Your task to perform on an android device: Go to Google maps Image 0: 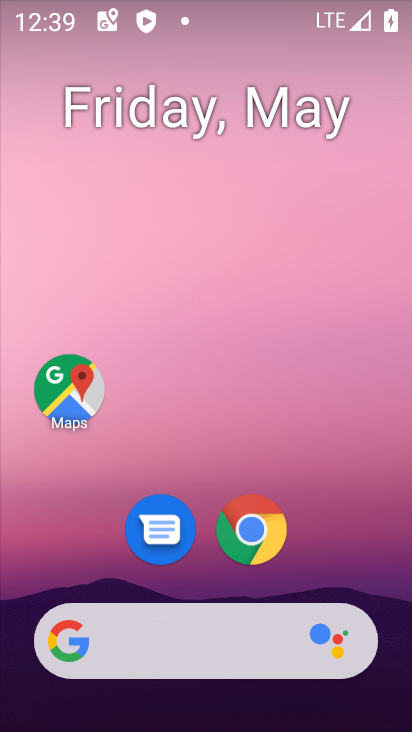
Step 0: click (72, 389)
Your task to perform on an android device: Go to Google maps Image 1: 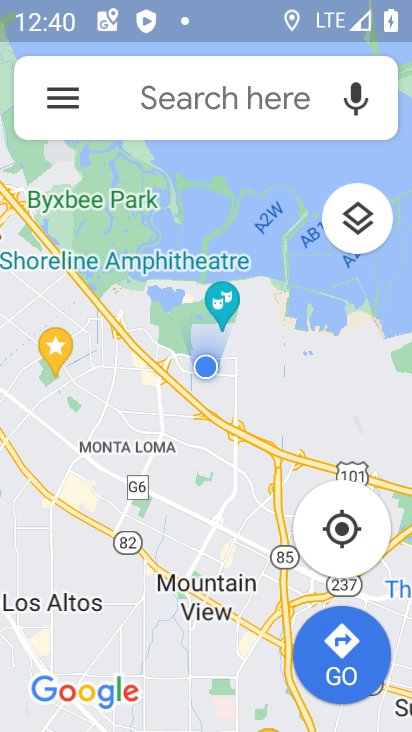
Step 1: task complete